Your task to perform on an android device: Open wifi settings Image 0: 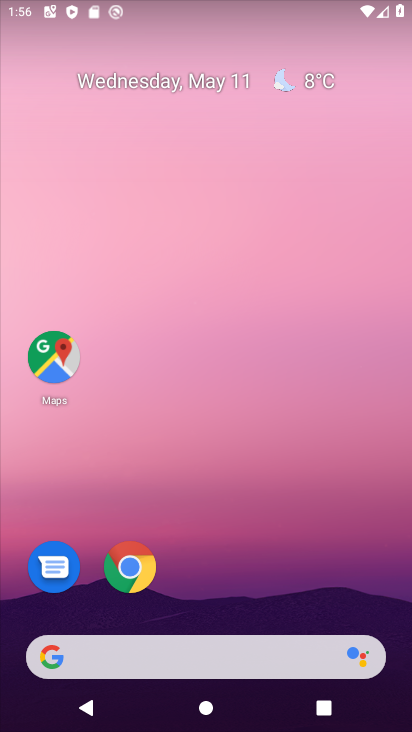
Step 0: drag from (342, 4) to (392, 409)
Your task to perform on an android device: Open wifi settings Image 1: 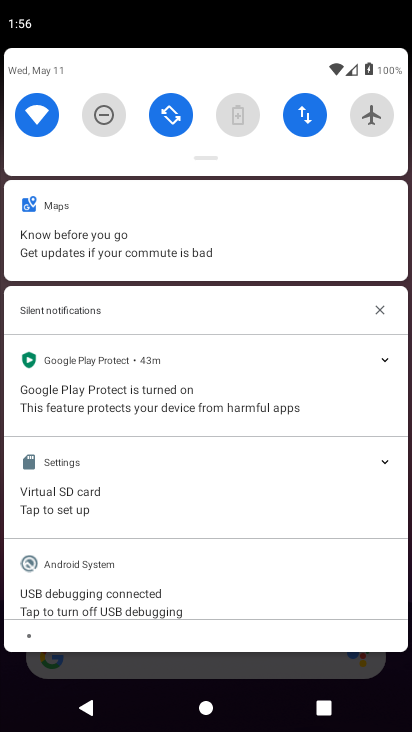
Step 1: click (29, 115)
Your task to perform on an android device: Open wifi settings Image 2: 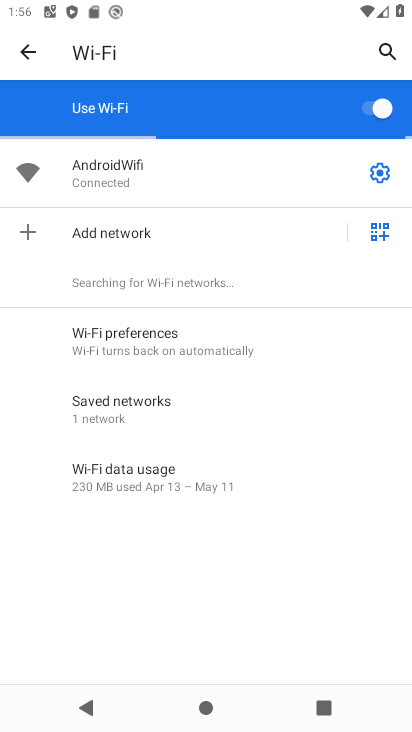
Step 2: task complete